Your task to perform on an android device: Go to accessibility settings Image 0: 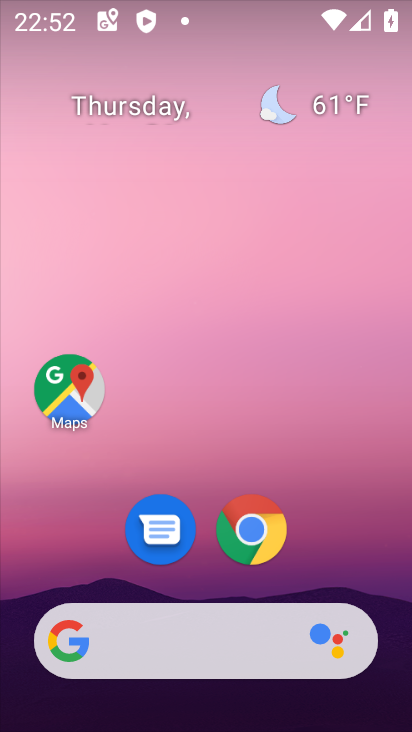
Step 0: drag from (358, 573) to (306, 22)
Your task to perform on an android device: Go to accessibility settings Image 1: 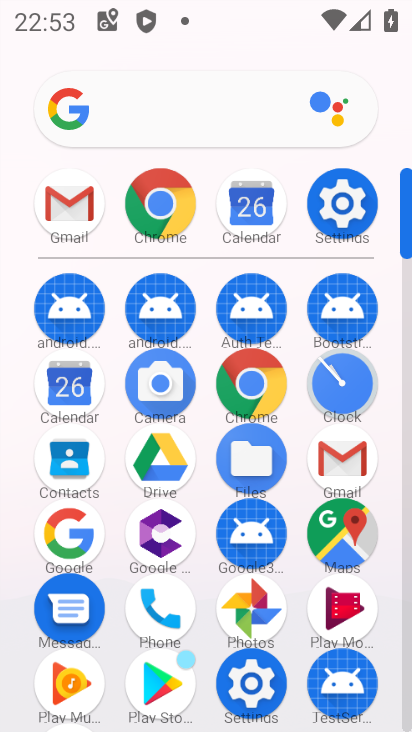
Step 1: click (345, 218)
Your task to perform on an android device: Go to accessibility settings Image 2: 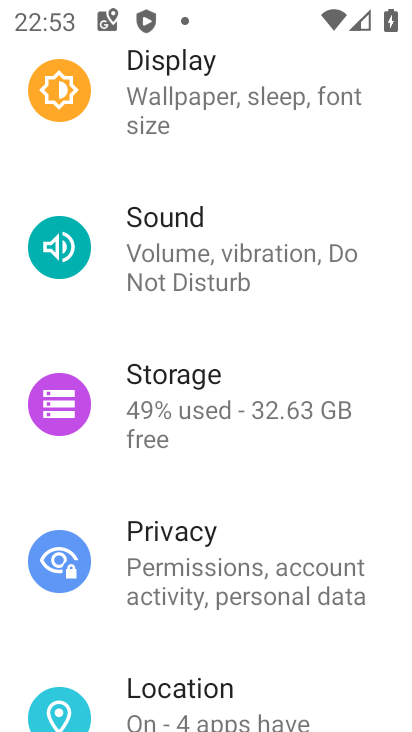
Step 2: drag from (253, 559) to (269, 3)
Your task to perform on an android device: Go to accessibility settings Image 3: 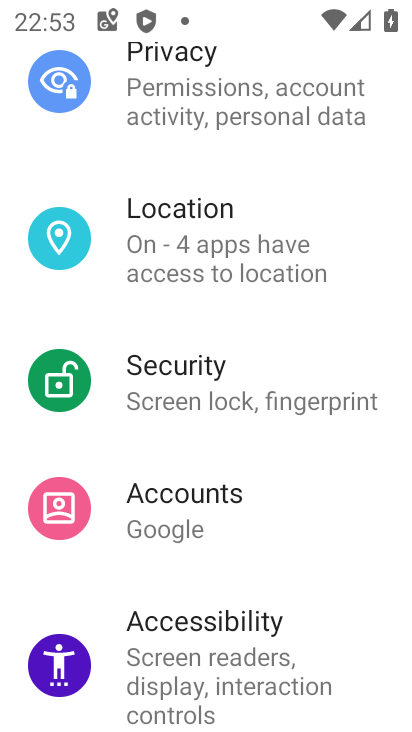
Step 3: click (240, 588)
Your task to perform on an android device: Go to accessibility settings Image 4: 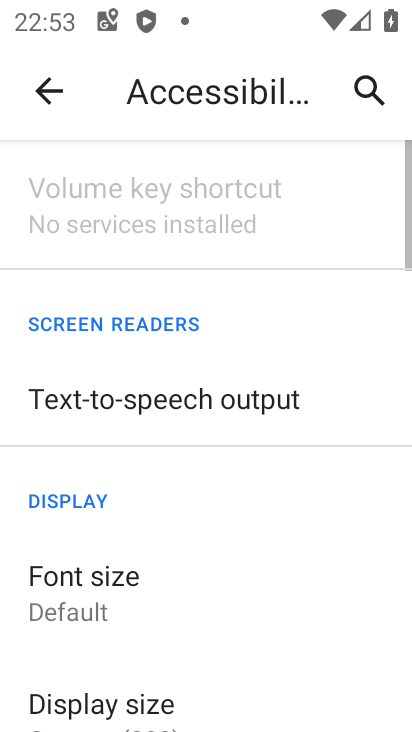
Step 4: task complete